Your task to perform on an android device: turn notification dots off Image 0: 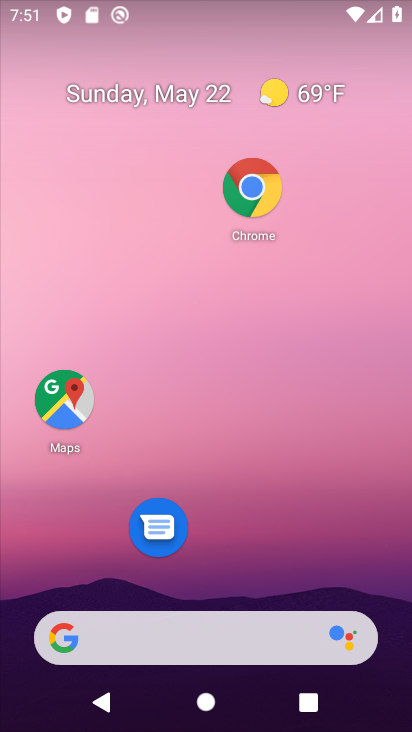
Step 0: press home button
Your task to perform on an android device: turn notification dots off Image 1: 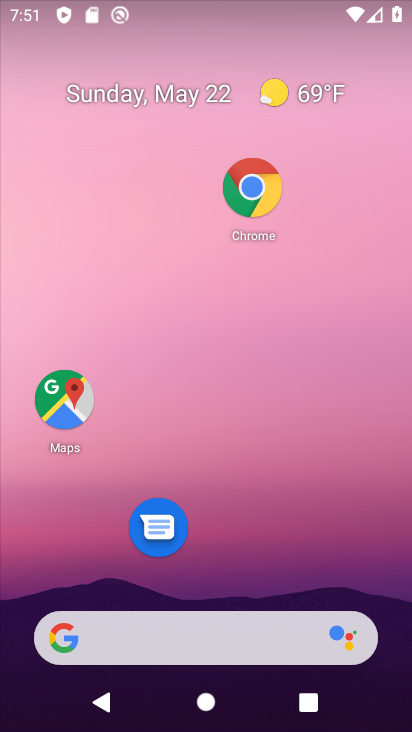
Step 1: drag from (232, 585) to (222, 181)
Your task to perform on an android device: turn notification dots off Image 2: 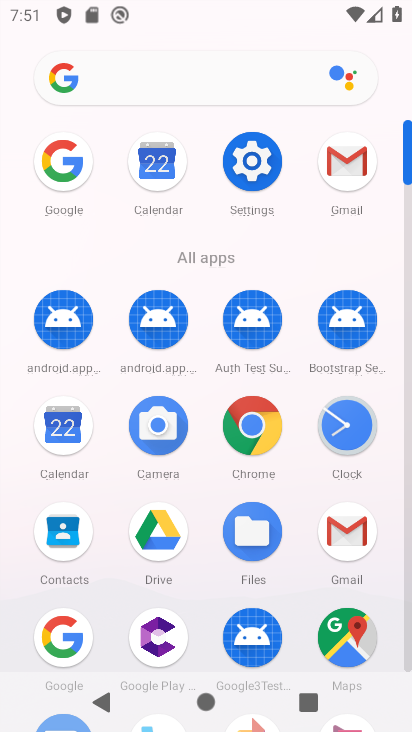
Step 2: click (250, 157)
Your task to perform on an android device: turn notification dots off Image 3: 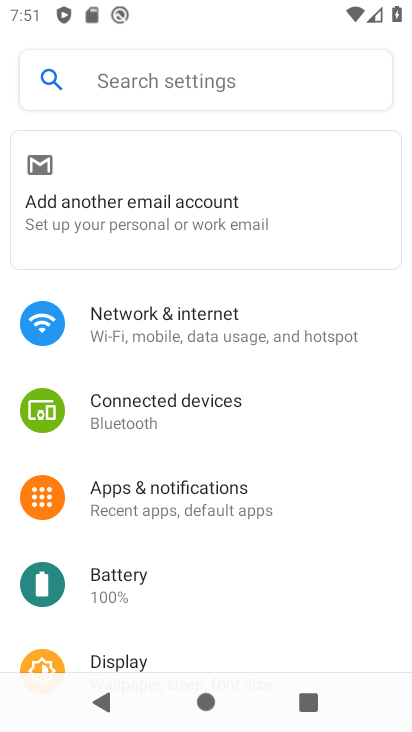
Step 3: click (223, 491)
Your task to perform on an android device: turn notification dots off Image 4: 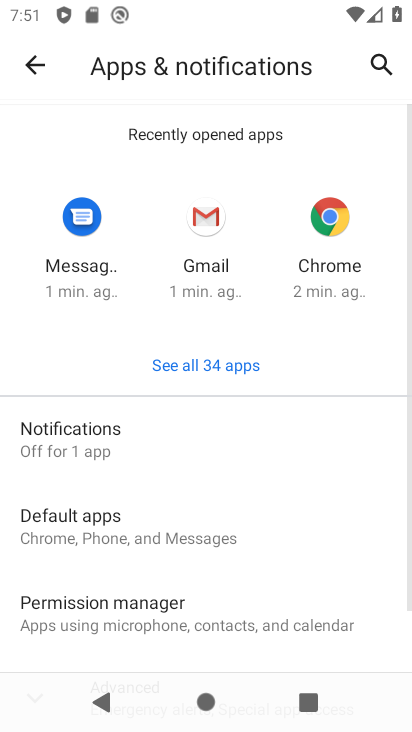
Step 4: click (134, 450)
Your task to perform on an android device: turn notification dots off Image 5: 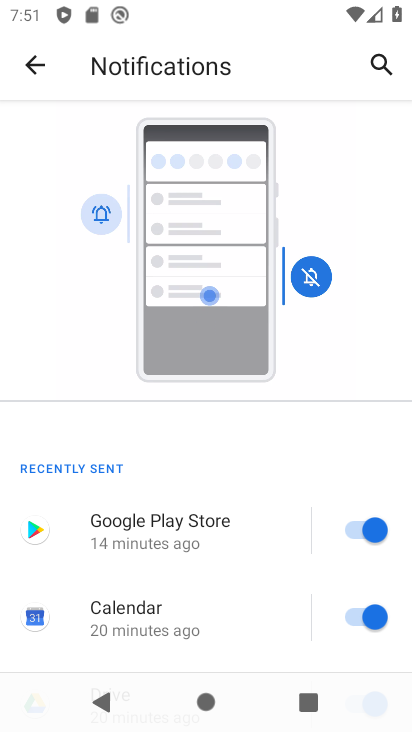
Step 5: drag from (229, 614) to (242, 260)
Your task to perform on an android device: turn notification dots off Image 6: 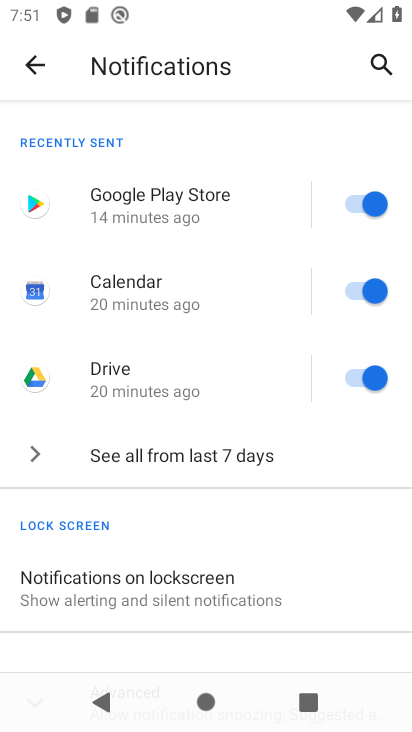
Step 6: drag from (248, 601) to (286, 150)
Your task to perform on an android device: turn notification dots off Image 7: 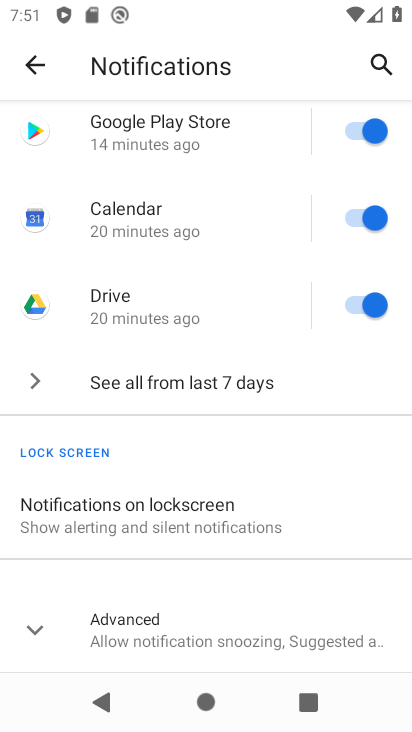
Step 7: click (35, 621)
Your task to perform on an android device: turn notification dots off Image 8: 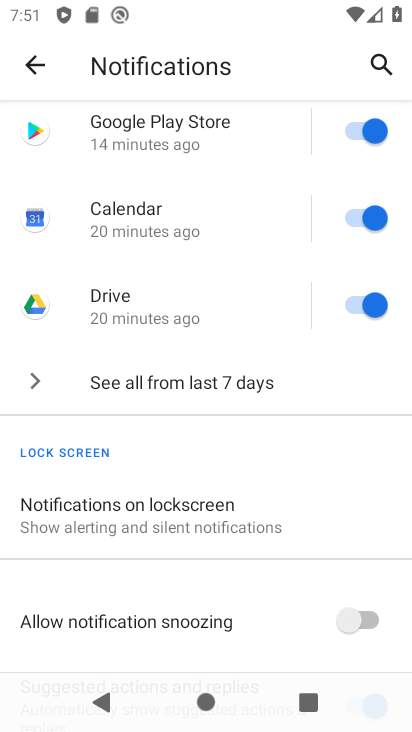
Step 8: drag from (160, 627) to (220, 96)
Your task to perform on an android device: turn notification dots off Image 9: 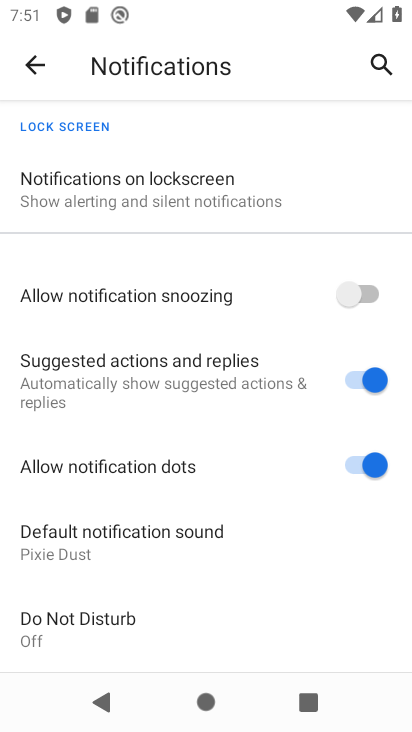
Step 9: click (360, 455)
Your task to perform on an android device: turn notification dots off Image 10: 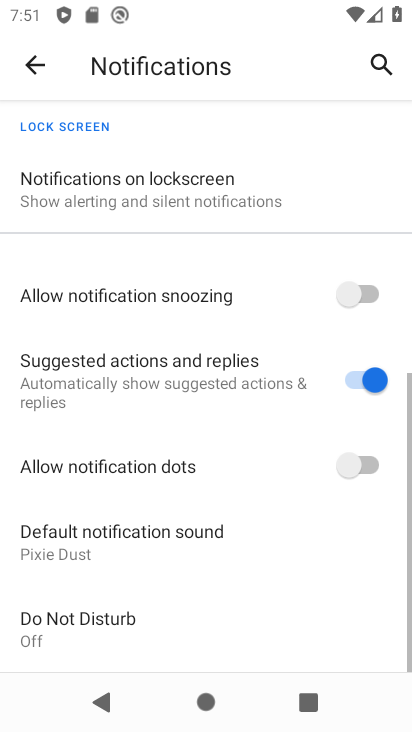
Step 10: task complete